Your task to perform on an android device: choose inbox layout in the gmail app Image 0: 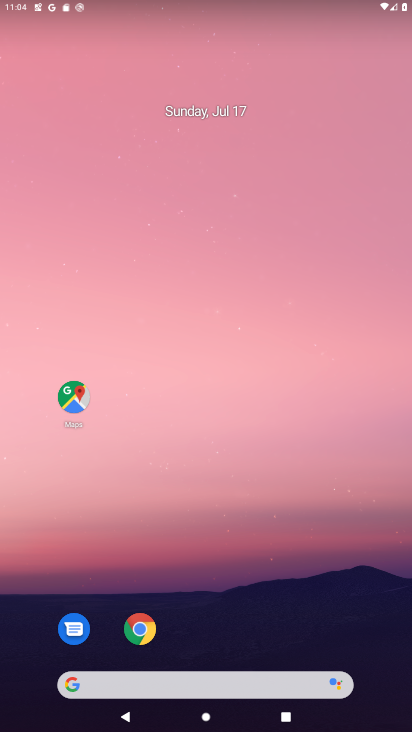
Step 0: drag from (204, 679) to (206, 50)
Your task to perform on an android device: choose inbox layout in the gmail app Image 1: 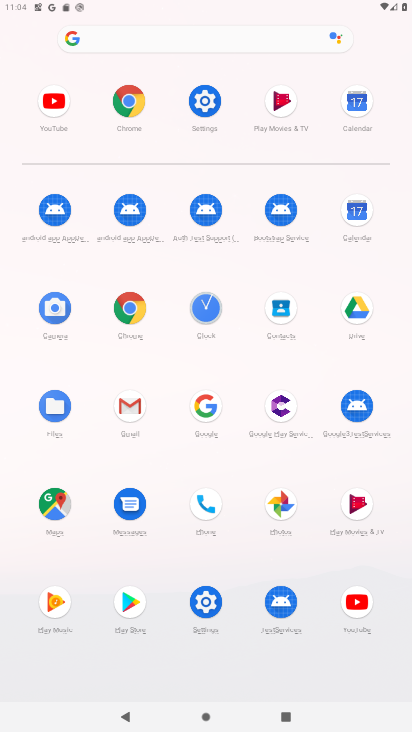
Step 1: click (129, 403)
Your task to perform on an android device: choose inbox layout in the gmail app Image 2: 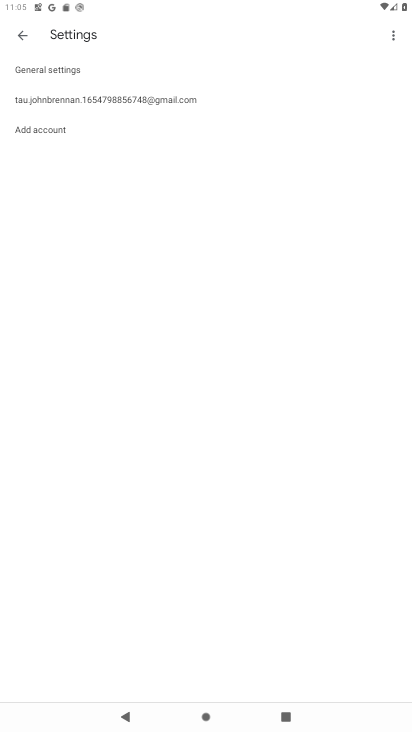
Step 2: click (173, 102)
Your task to perform on an android device: choose inbox layout in the gmail app Image 3: 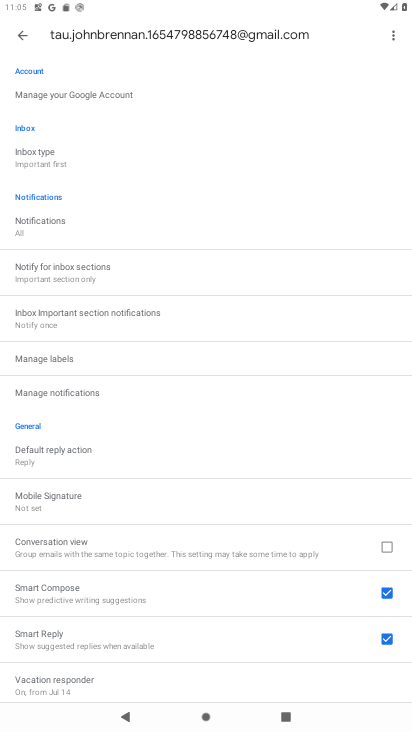
Step 3: click (70, 163)
Your task to perform on an android device: choose inbox layout in the gmail app Image 4: 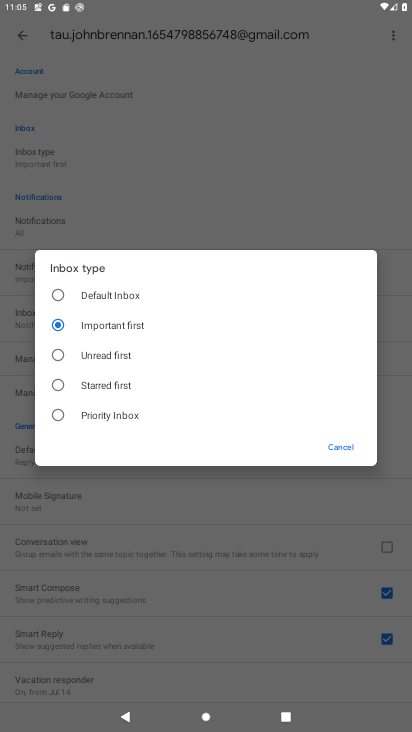
Step 4: click (100, 348)
Your task to perform on an android device: choose inbox layout in the gmail app Image 5: 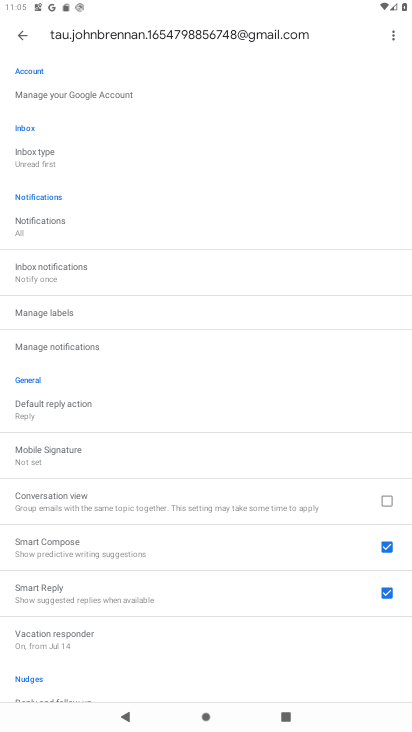
Step 5: task complete